Your task to perform on an android device: turn pop-ups on in chrome Image 0: 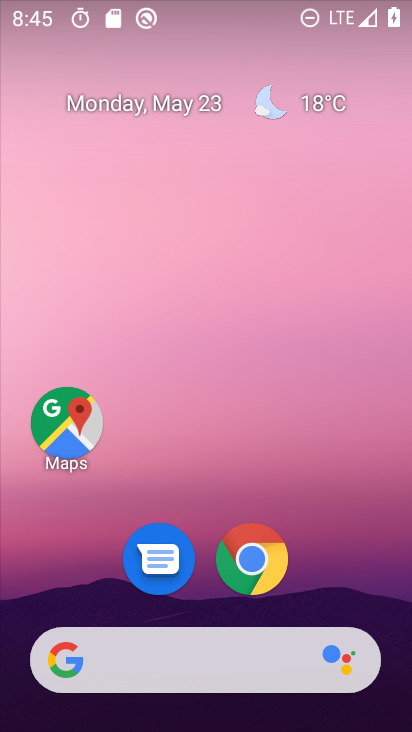
Step 0: drag from (390, 635) to (282, 31)
Your task to perform on an android device: turn pop-ups on in chrome Image 1: 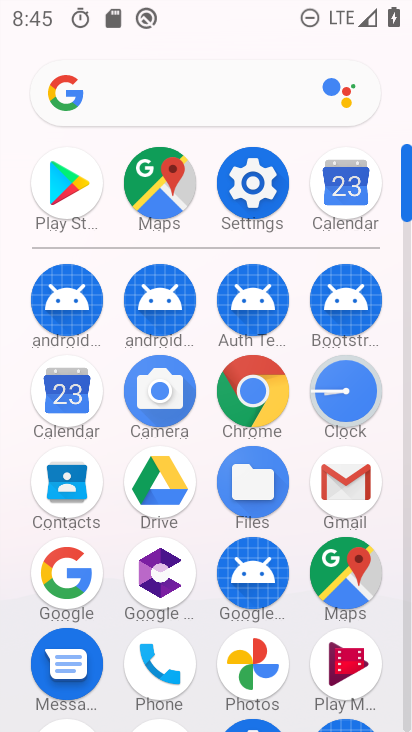
Step 1: click (257, 393)
Your task to perform on an android device: turn pop-ups on in chrome Image 2: 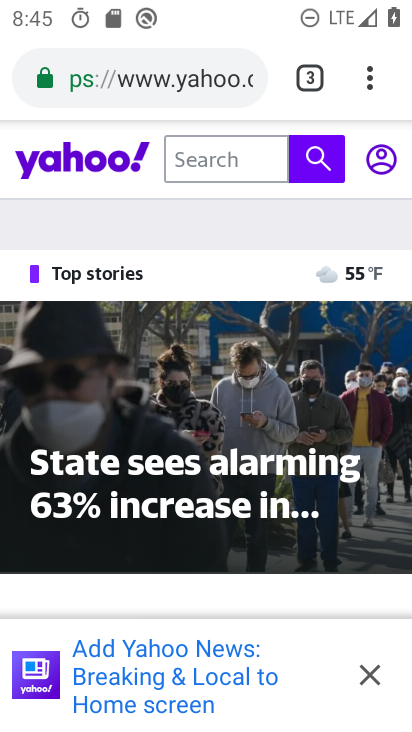
Step 2: press back button
Your task to perform on an android device: turn pop-ups on in chrome Image 3: 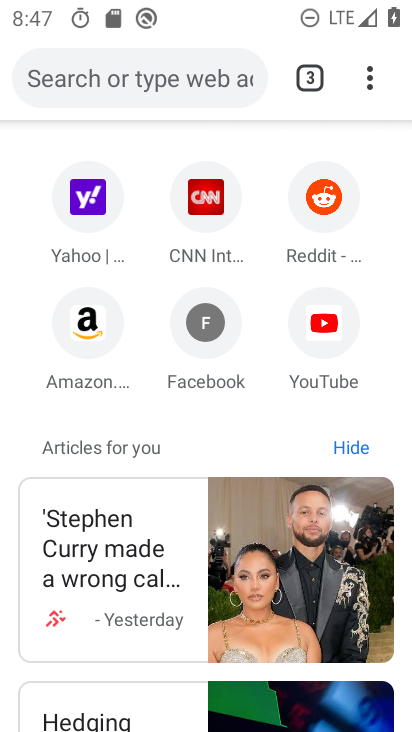
Step 3: click (370, 72)
Your task to perform on an android device: turn pop-ups on in chrome Image 4: 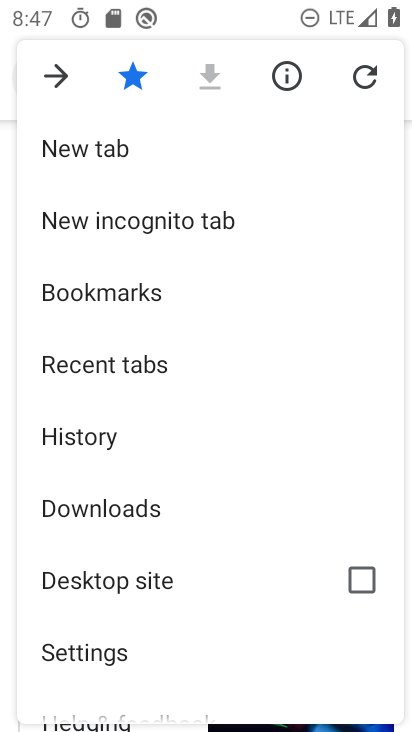
Step 4: click (143, 650)
Your task to perform on an android device: turn pop-ups on in chrome Image 5: 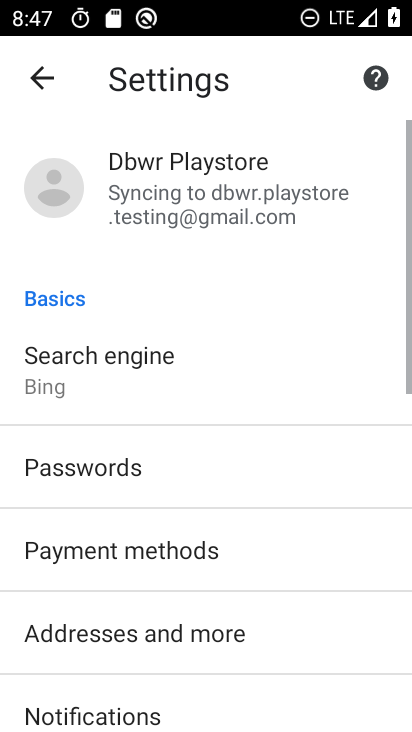
Step 5: drag from (149, 657) to (254, 248)
Your task to perform on an android device: turn pop-ups on in chrome Image 6: 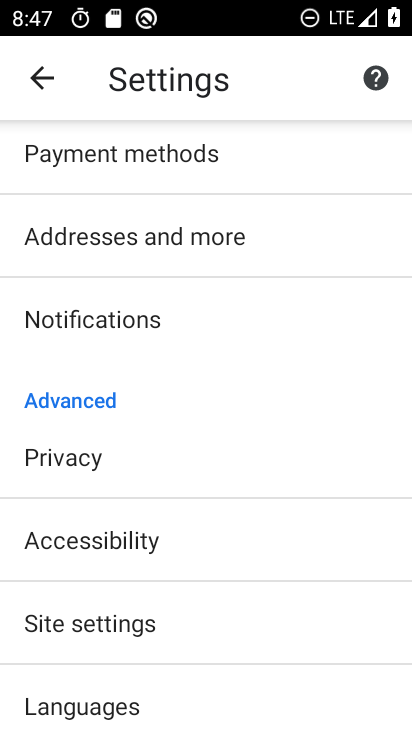
Step 6: click (179, 611)
Your task to perform on an android device: turn pop-ups on in chrome Image 7: 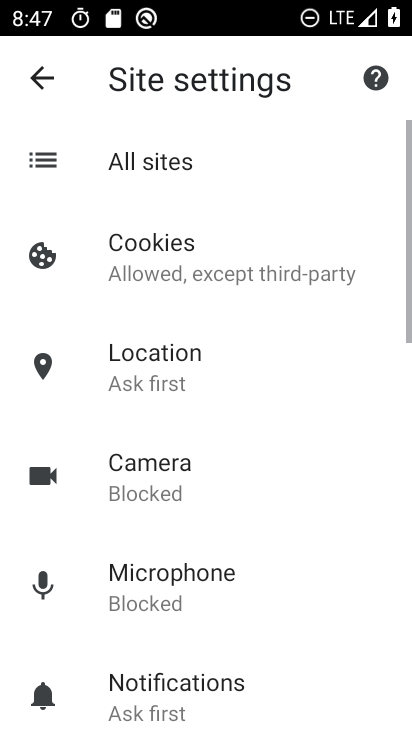
Step 7: drag from (192, 681) to (245, 279)
Your task to perform on an android device: turn pop-ups on in chrome Image 8: 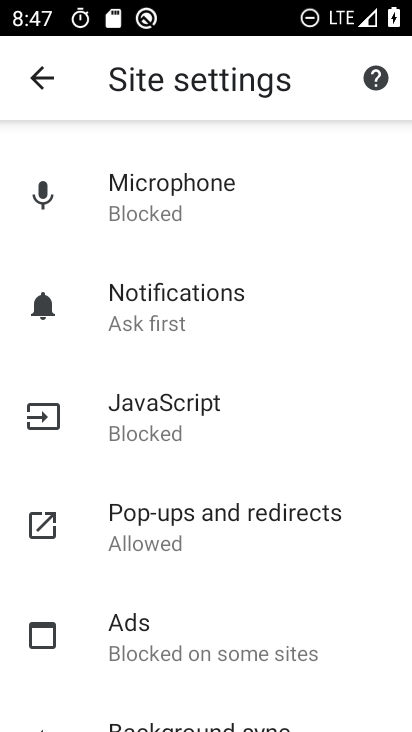
Step 8: click (211, 518)
Your task to perform on an android device: turn pop-ups on in chrome Image 9: 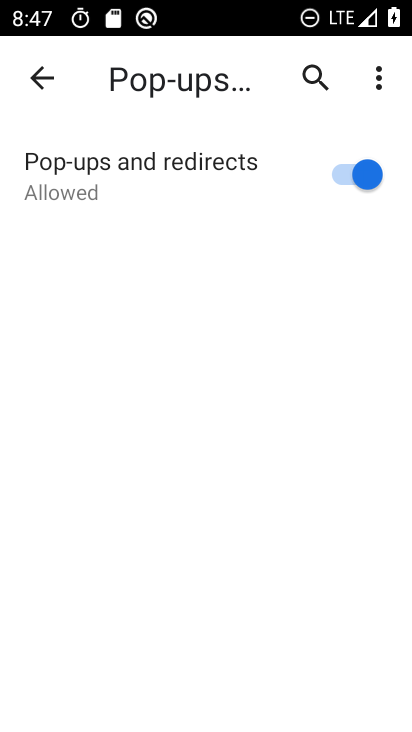
Step 9: task complete